Your task to perform on an android device: set the stopwatch Image 0: 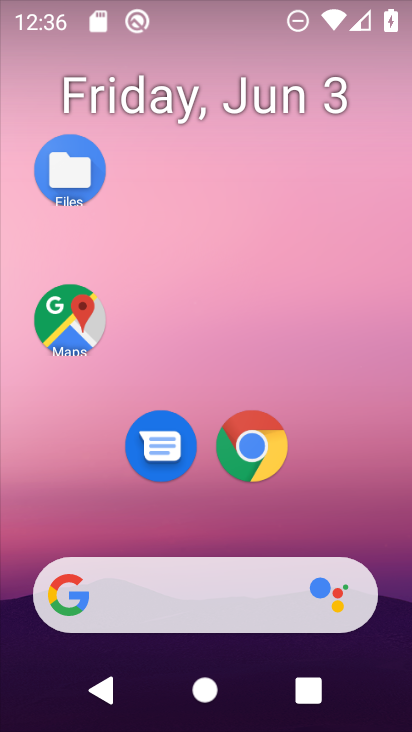
Step 0: drag from (264, 712) to (204, 64)
Your task to perform on an android device: set the stopwatch Image 1: 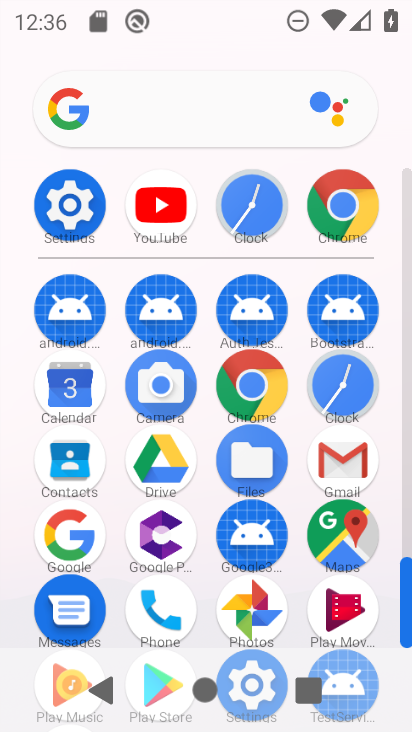
Step 1: click (320, 381)
Your task to perform on an android device: set the stopwatch Image 2: 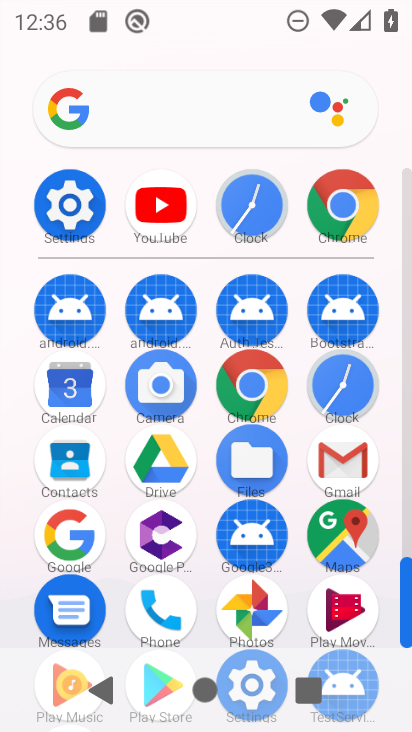
Step 2: click (320, 382)
Your task to perform on an android device: set the stopwatch Image 3: 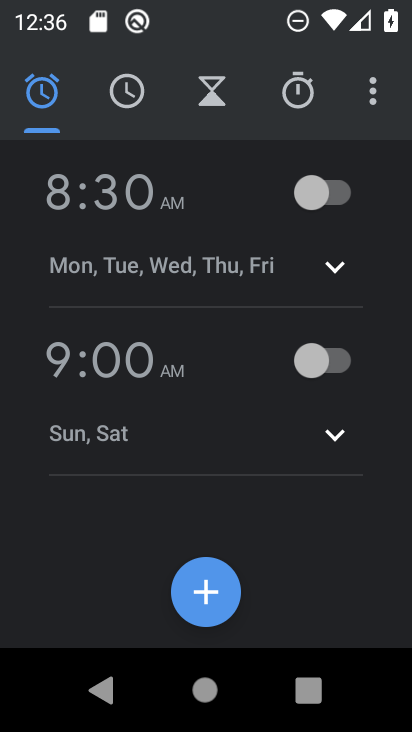
Step 3: click (298, 99)
Your task to perform on an android device: set the stopwatch Image 4: 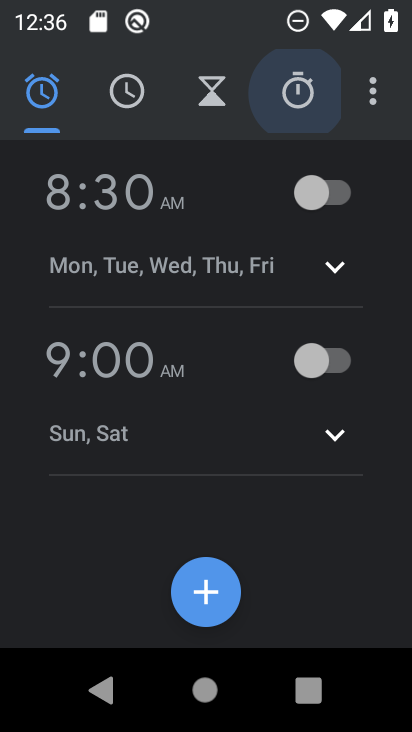
Step 4: click (297, 100)
Your task to perform on an android device: set the stopwatch Image 5: 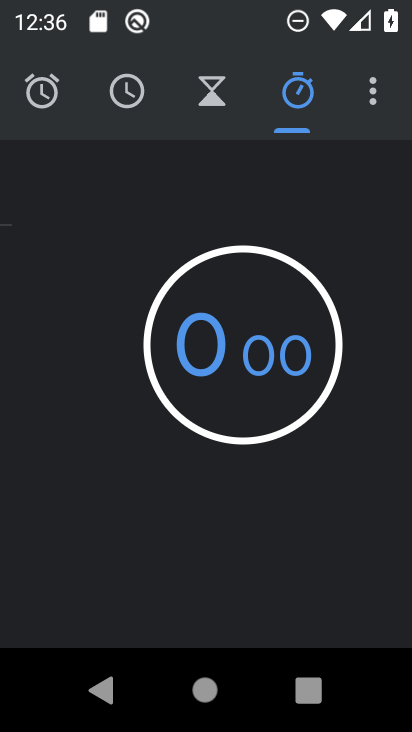
Step 5: click (297, 100)
Your task to perform on an android device: set the stopwatch Image 6: 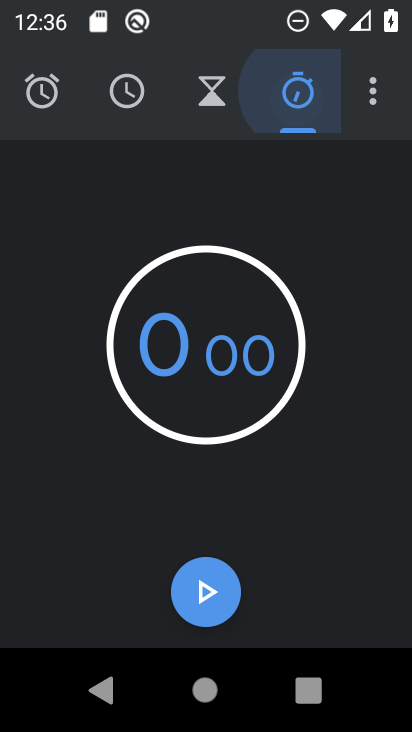
Step 6: click (297, 100)
Your task to perform on an android device: set the stopwatch Image 7: 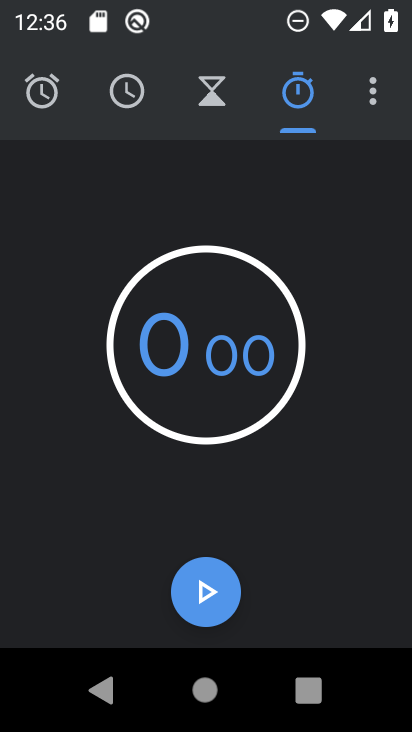
Step 7: click (202, 592)
Your task to perform on an android device: set the stopwatch Image 8: 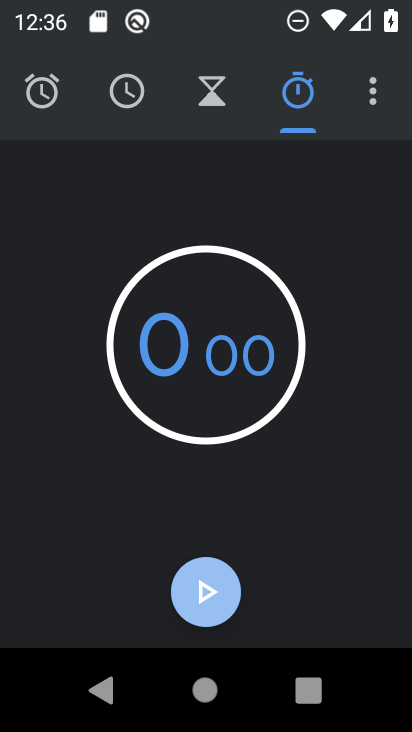
Step 8: click (202, 592)
Your task to perform on an android device: set the stopwatch Image 9: 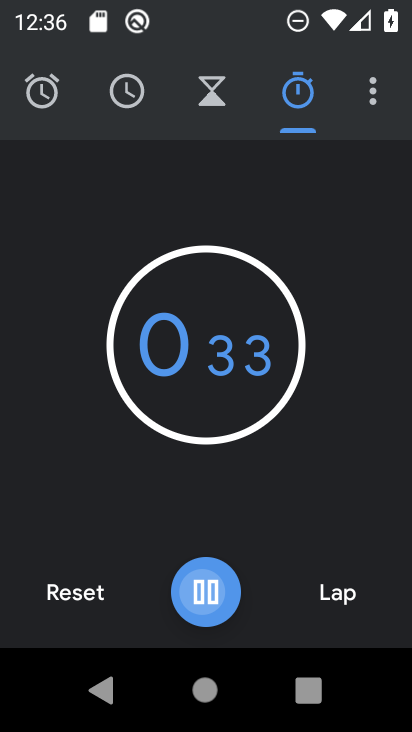
Step 9: click (202, 592)
Your task to perform on an android device: set the stopwatch Image 10: 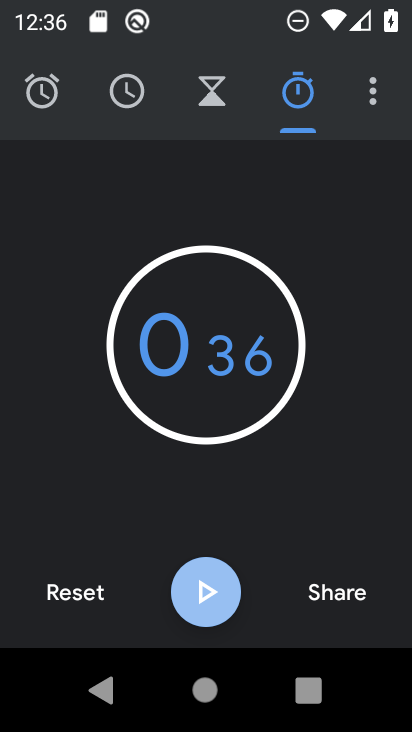
Step 10: click (201, 593)
Your task to perform on an android device: set the stopwatch Image 11: 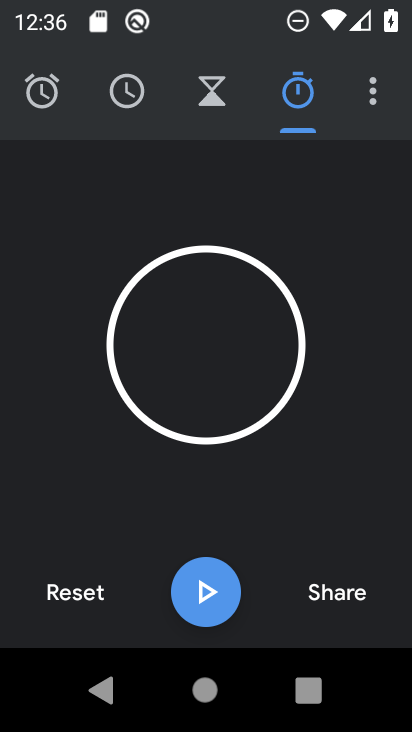
Step 11: click (197, 583)
Your task to perform on an android device: set the stopwatch Image 12: 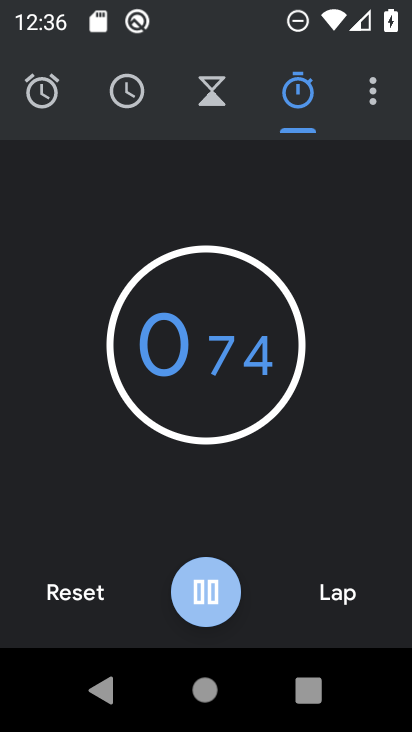
Step 12: click (197, 583)
Your task to perform on an android device: set the stopwatch Image 13: 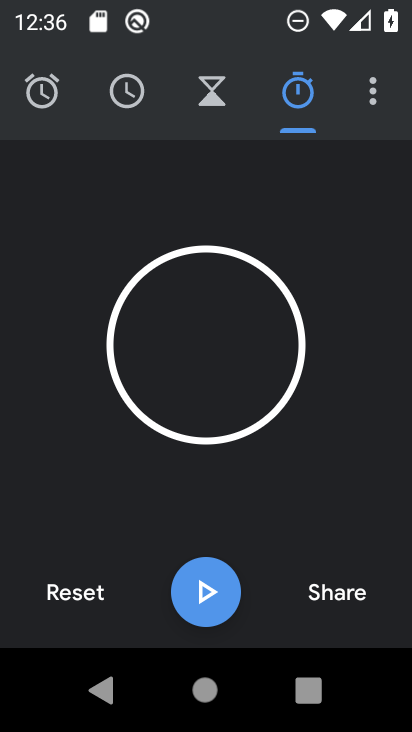
Step 13: task complete